Your task to perform on an android device: Is it going to rain tomorrow? Image 0: 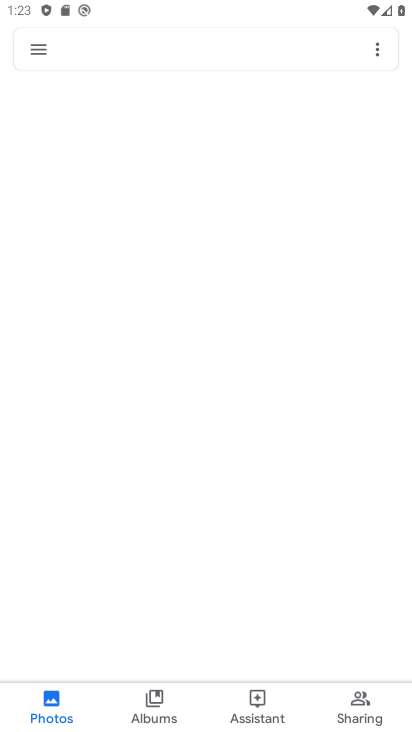
Step 0: press back button
Your task to perform on an android device: Is it going to rain tomorrow? Image 1: 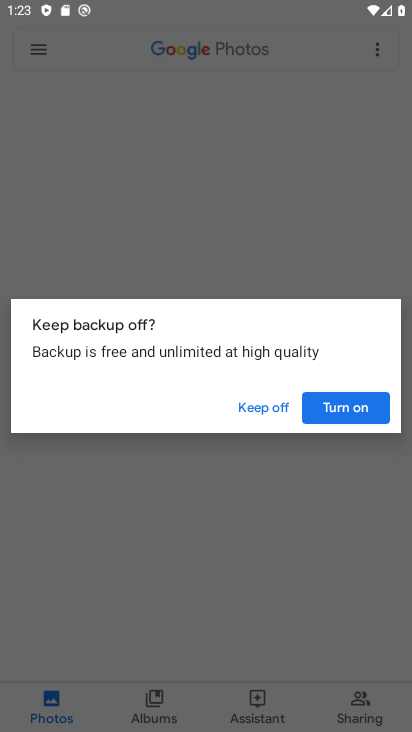
Step 1: press home button
Your task to perform on an android device: Is it going to rain tomorrow? Image 2: 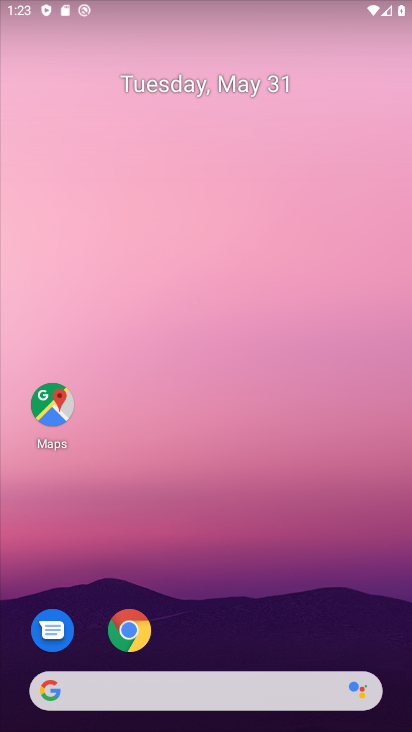
Step 2: drag from (290, 604) to (238, 14)
Your task to perform on an android device: Is it going to rain tomorrow? Image 3: 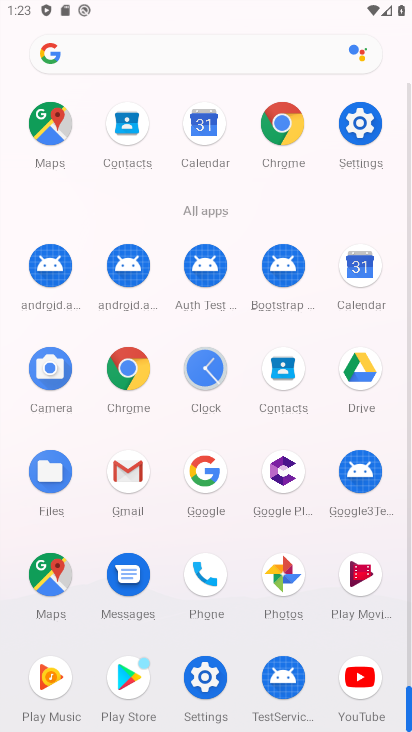
Step 3: click (278, 123)
Your task to perform on an android device: Is it going to rain tomorrow? Image 4: 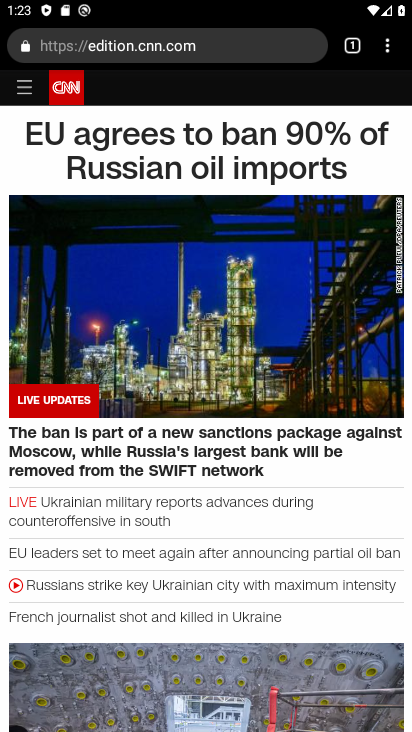
Step 4: click (194, 46)
Your task to perform on an android device: Is it going to rain tomorrow? Image 5: 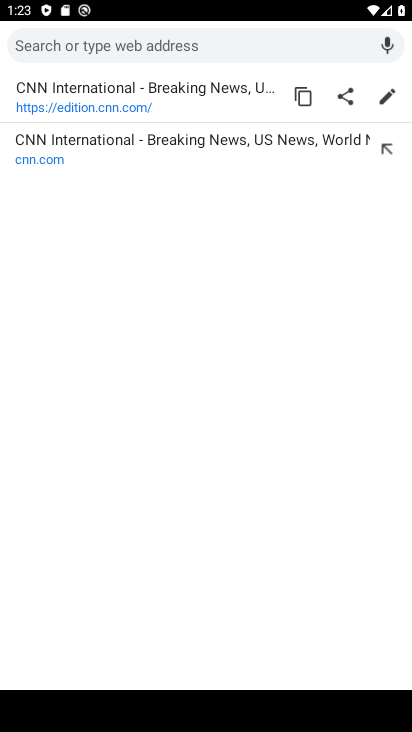
Step 5: type "Is it going to rain tomorrow?"
Your task to perform on an android device: Is it going to rain tomorrow? Image 6: 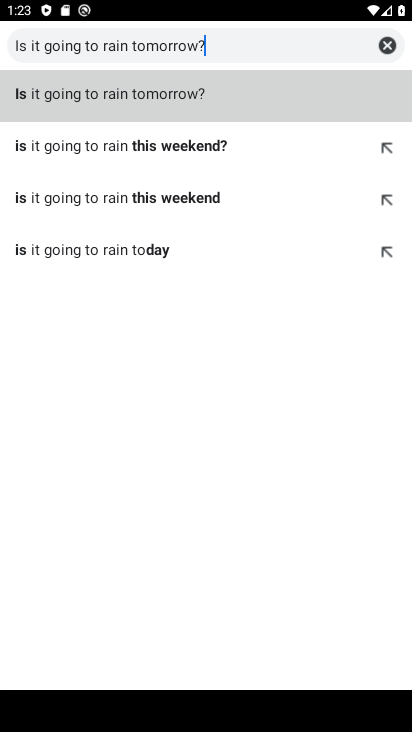
Step 6: type ""
Your task to perform on an android device: Is it going to rain tomorrow? Image 7: 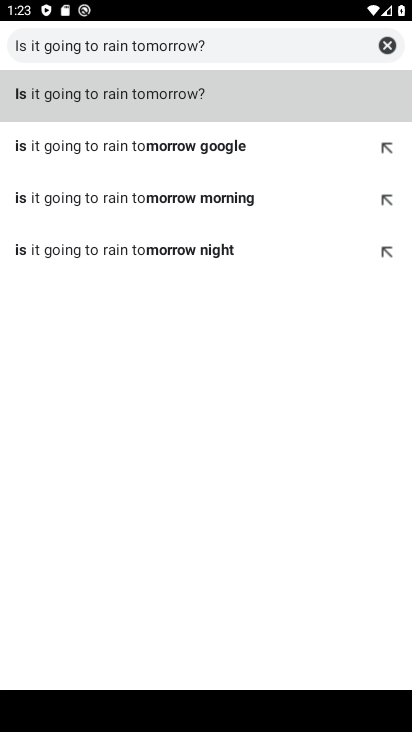
Step 7: click (119, 93)
Your task to perform on an android device: Is it going to rain tomorrow? Image 8: 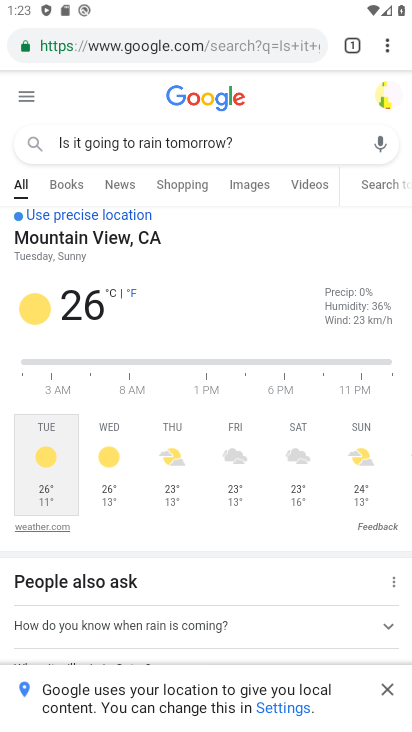
Step 8: task complete